Your task to perform on an android device: Set the phone to "Do not disturb". Image 0: 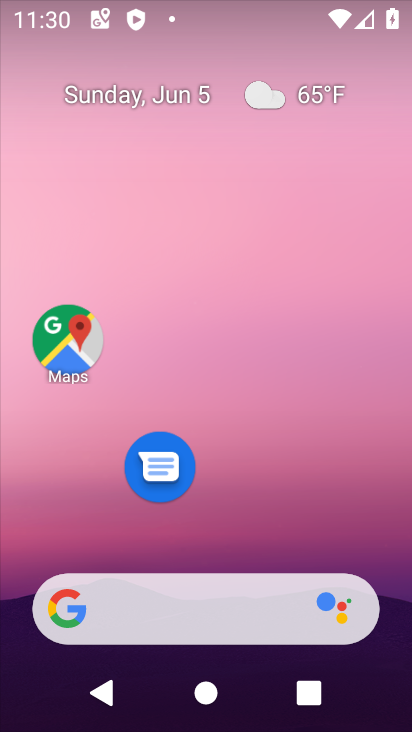
Step 0: drag from (367, 7) to (296, 415)
Your task to perform on an android device: Set the phone to "Do not disturb". Image 1: 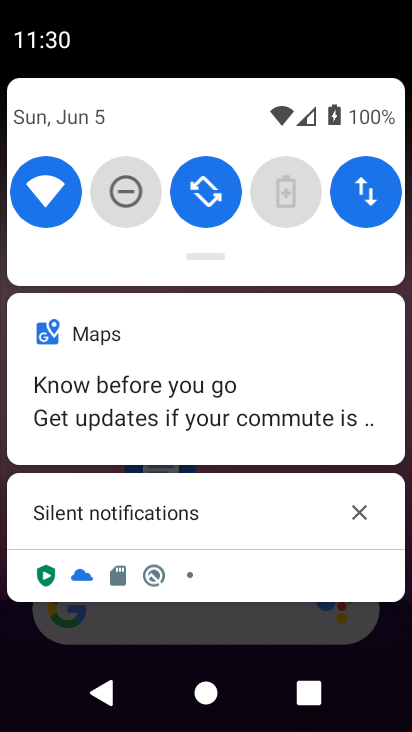
Step 1: click (119, 197)
Your task to perform on an android device: Set the phone to "Do not disturb". Image 2: 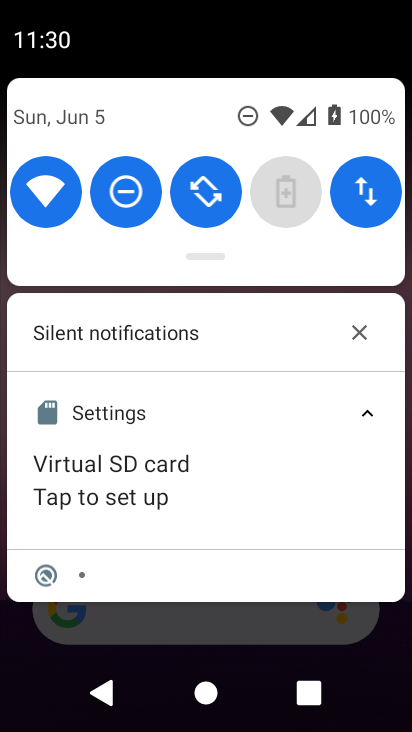
Step 2: task complete